Your task to perform on an android device: Open the map Image 0: 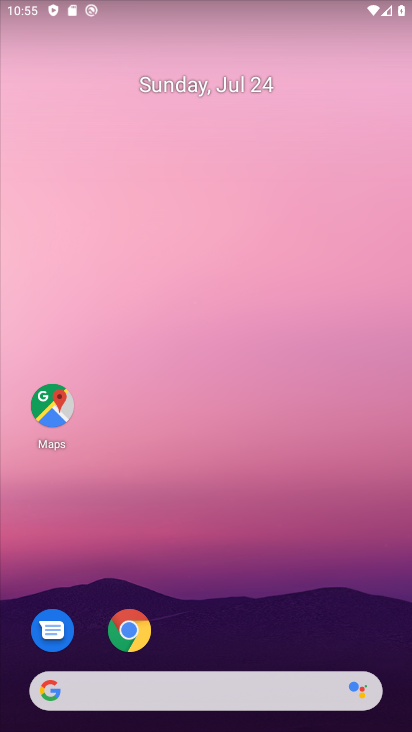
Step 0: click (47, 392)
Your task to perform on an android device: Open the map Image 1: 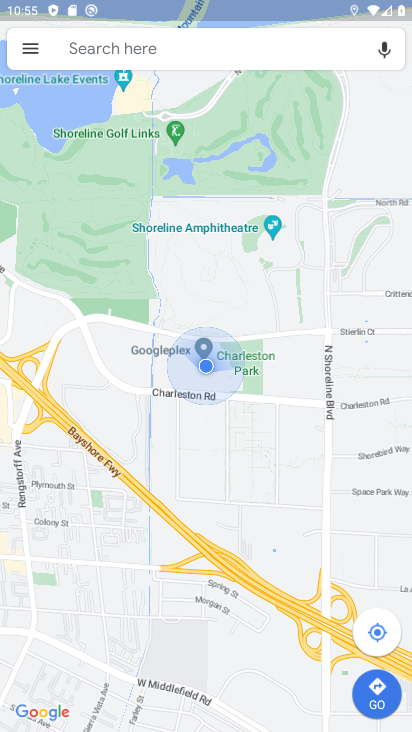
Step 1: task complete